Your task to perform on an android device: Go to Maps Image 0: 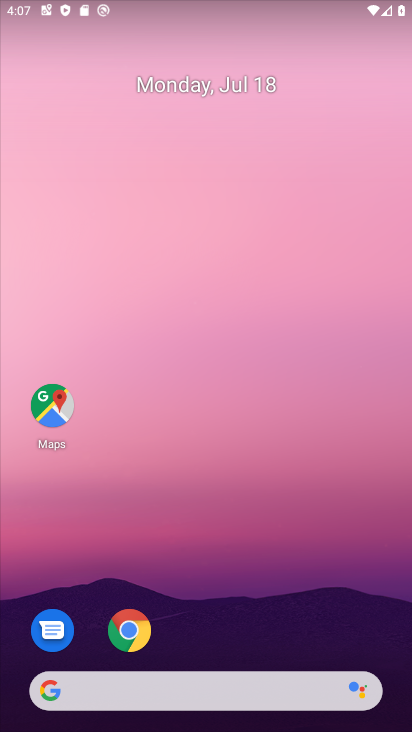
Step 0: click (50, 406)
Your task to perform on an android device: Go to Maps Image 1: 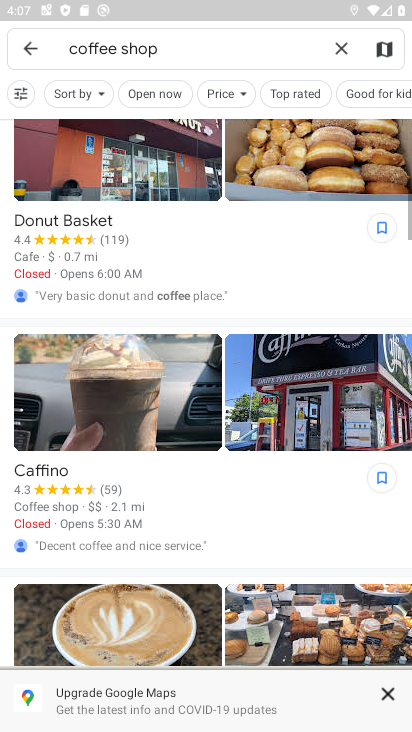
Step 1: click (339, 46)
Your task to perform on an android device: Go to Maps Image 2: 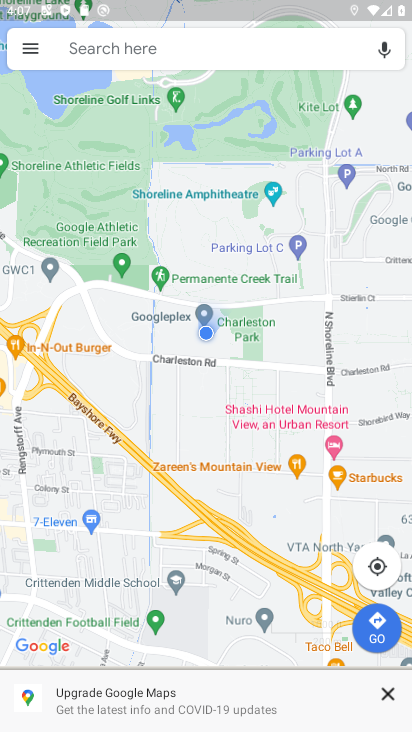
Step 2: task complete